Your task to perform on an android device: toggle priority inbox in the gmail app Image 0: 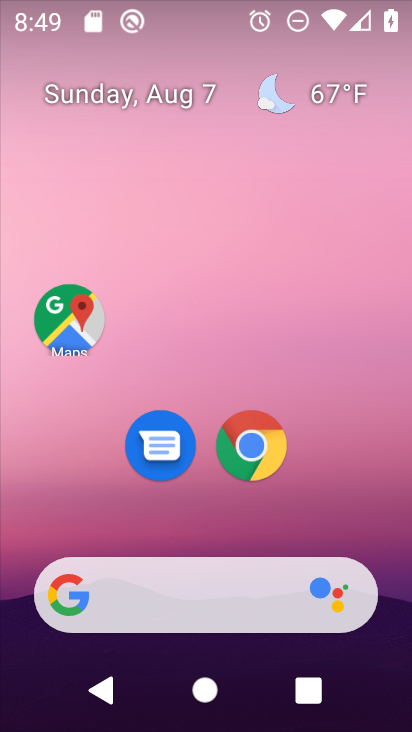
Step 0: press home button
Your task to perform on an android device: toggle priority inbox in the gmail app Image 1: 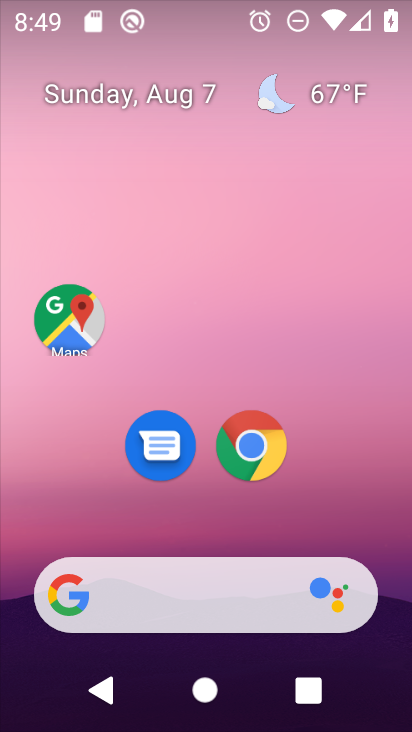
Step 1: drag from (201, 536) to (237, 1)
Your task to perform on an android device: toggle priority inbox in the gmail app Image 2: 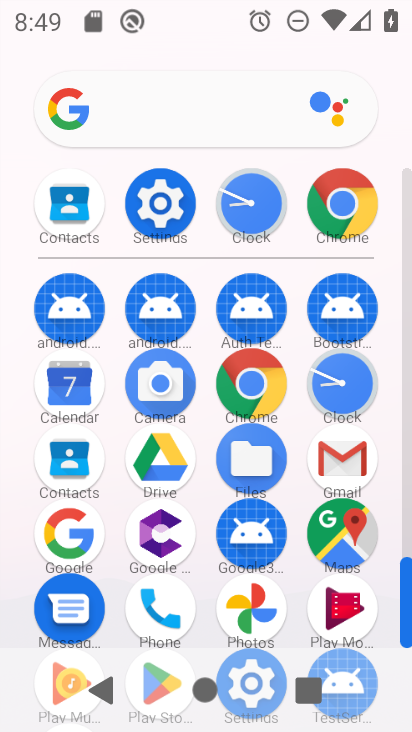
Step 2: click (340, 450)
Your task to perform on an android device: toggle priority inbox in the gmail app Image 3: 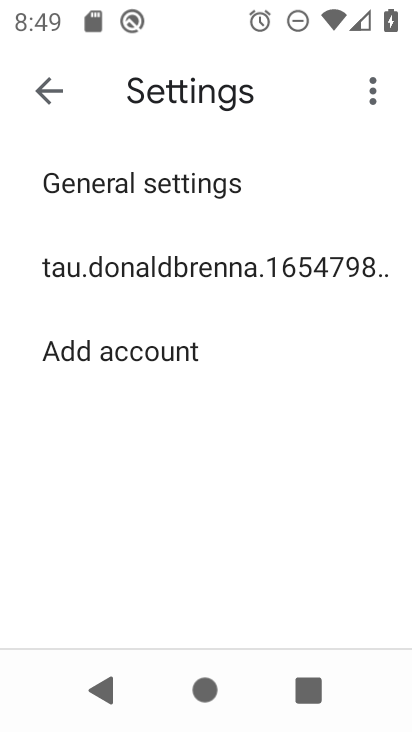
Step 3: click (129, 270)
Your task to perform on an android device: toggle priority inbox in the gmail app Image 4: 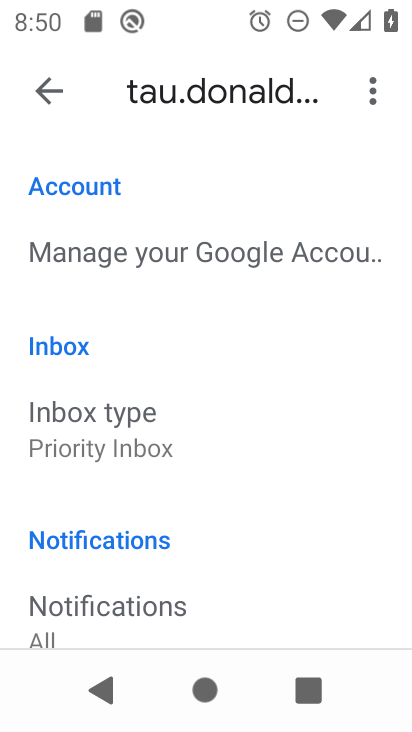
Step 4: task complete